Your task to perform on an android device: Go to notification settings Image 0: 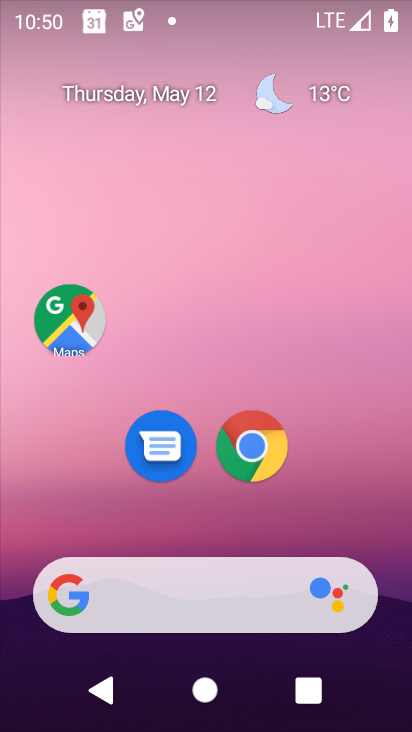
Step 0: drag from (301, 570) to (332, 47)
Your task to perform on an android device: Go to notification settings Image 1: 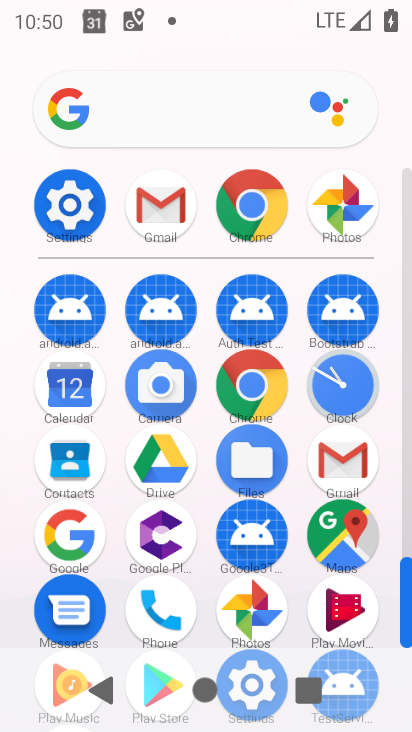
Step 1: click (62, 206)
Your task to perform on an android device: Go to notification settings Image 2: 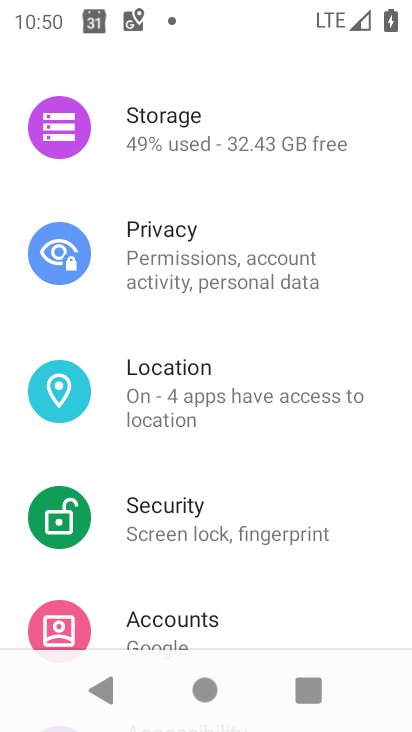
Step 2: drag from (235, 197) to (292, 712)
Your task to perform on an android device: Go to notification settings Image 3: 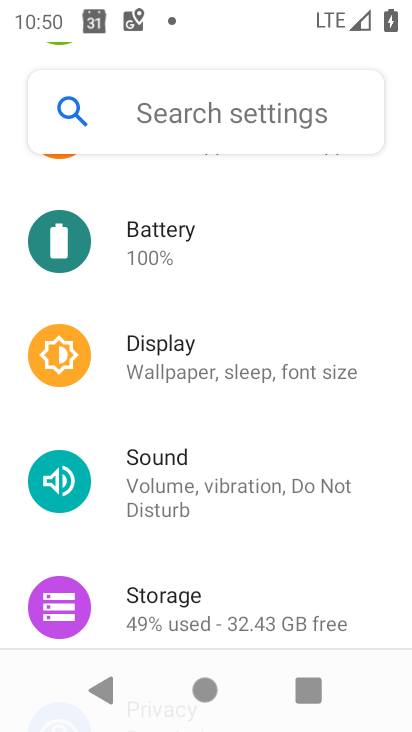
Step 3: drag from (306, 238) to (289, 647)
Your task to perform on an android device: Go to notification settings Image 4: 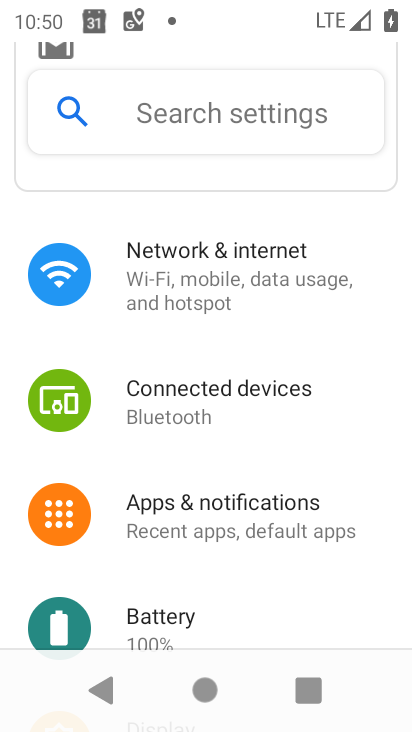
Step 4: click (249, 515)
Your task to perform on an android device: Go to notification settings Image 5: 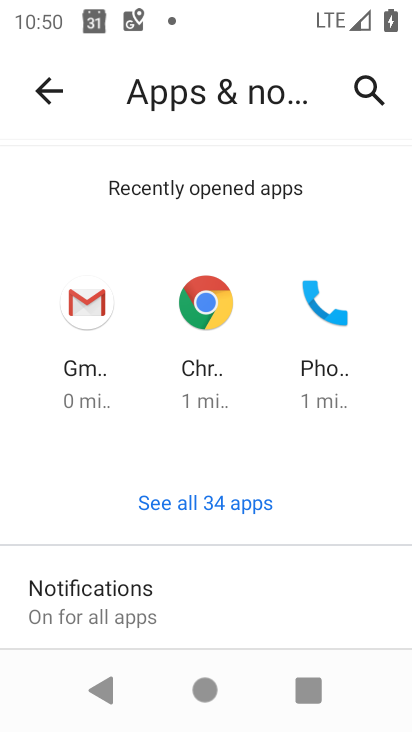
Step 5: drag from (285, 610) to (284, 221)
Your task to perform on an android device: Go to notification settings Image 6: 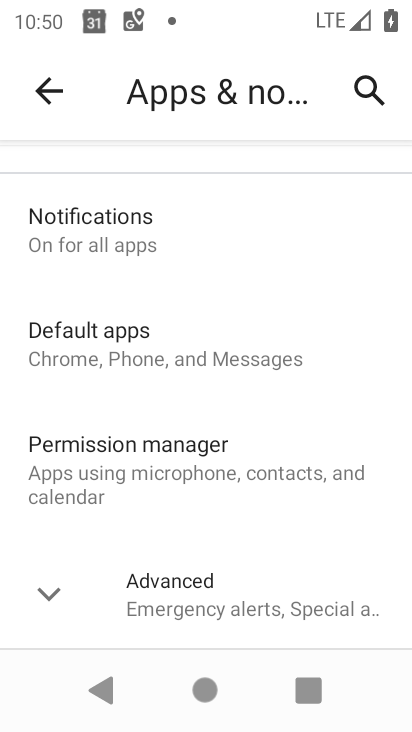
Step 6: click (272, 231)
Your task to perform on an android device: Go to notification settings Image 7: 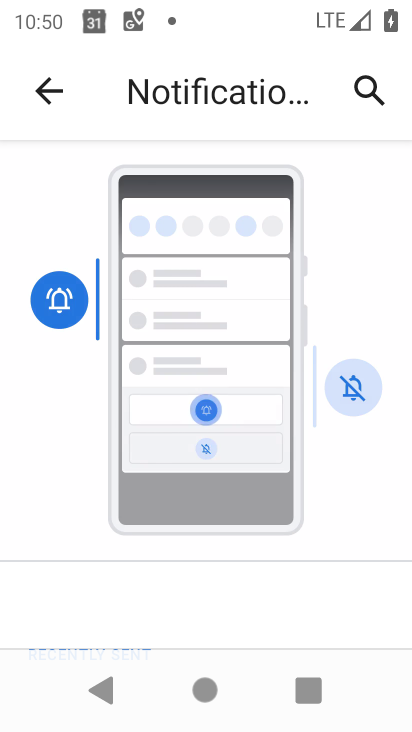
Step 7: task complete